Your task to perform on an android device: When is my next appointment? Image 0: 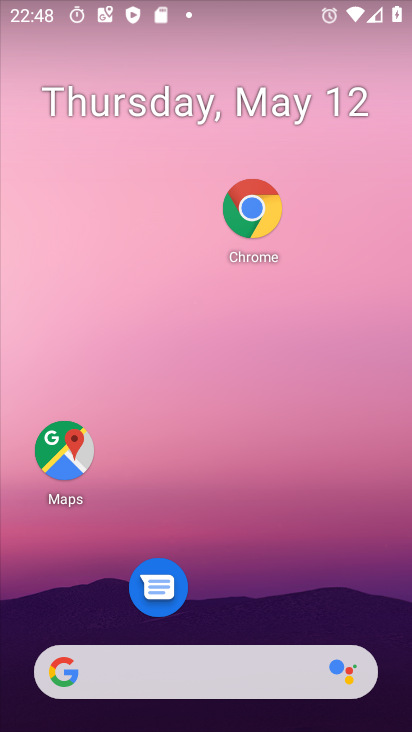
Step 0: drag from (250, 510) to (248, 142)
Your task to perform on an android device: When is my next appointment? Image 1: 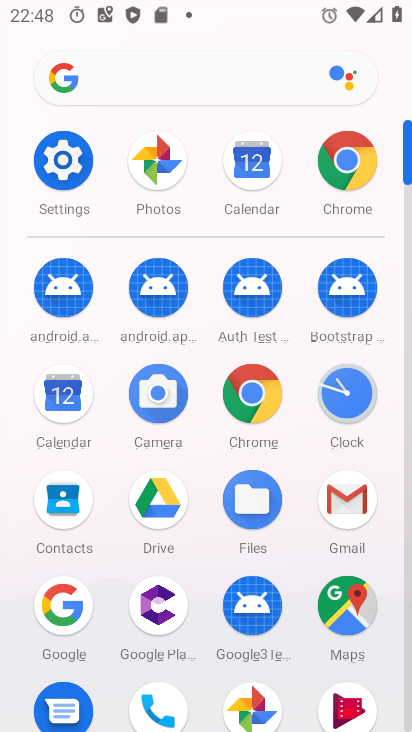
Step 1: click (51, 387)
Your task to perform on an android device: When is my next appointment? Image 2: 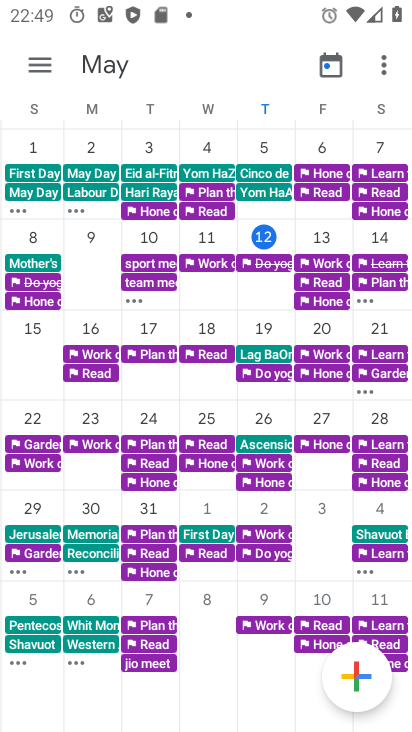
Step 2: click (387, 229)
Your task to perform on an android device: When is my next appointment? Image 3: 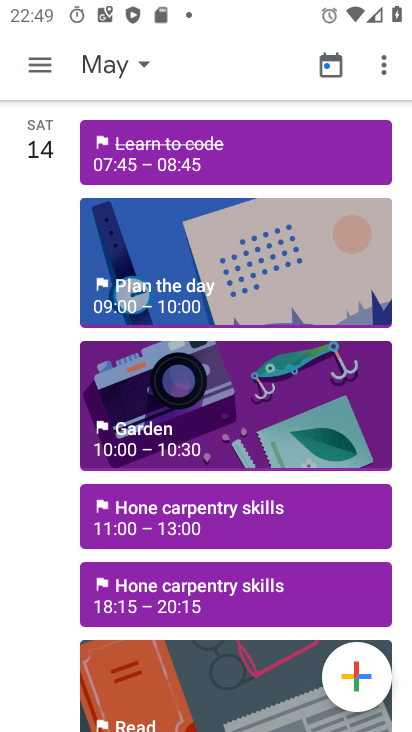
Step 3: task complete